Your task to perform on an android device: install app "File Manager" Image 0: 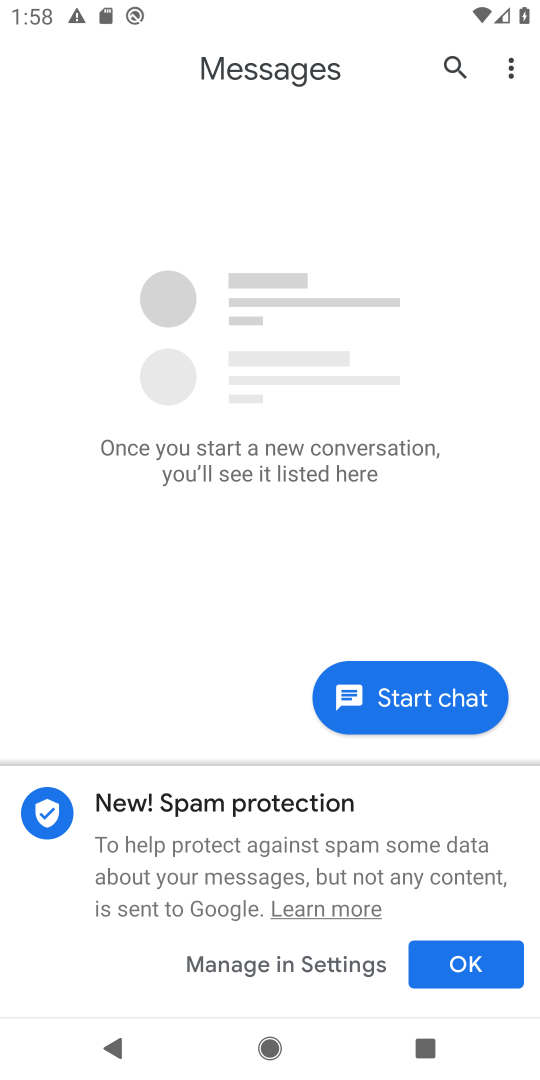
Step 0: press home button
Your task to perform on an android device: install app "File Manager" Image 1: 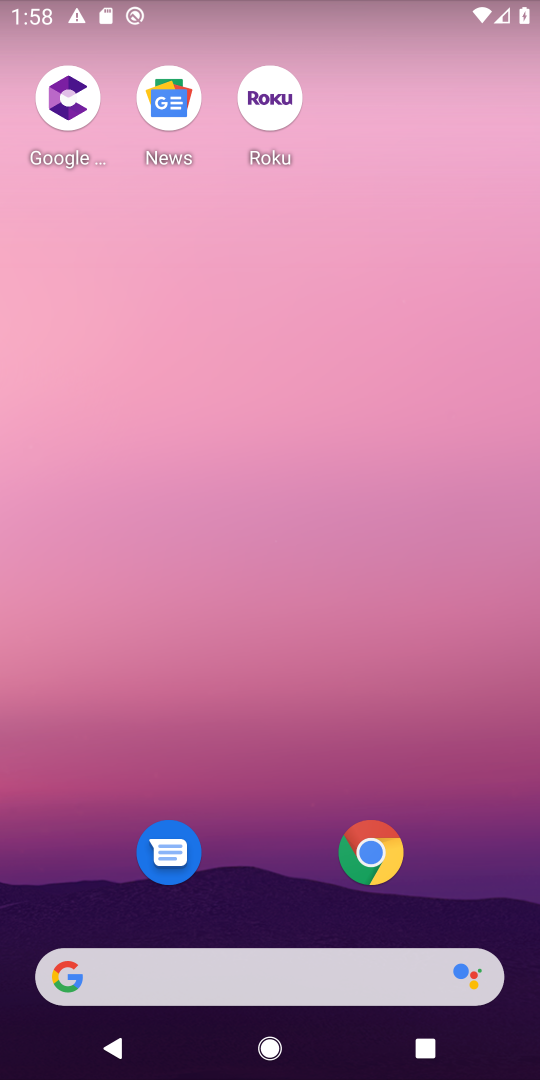
Step 1: drag from (271, 890) to (271, 176)
Your task to perform on an android device: install app "File Manager" Image 2: 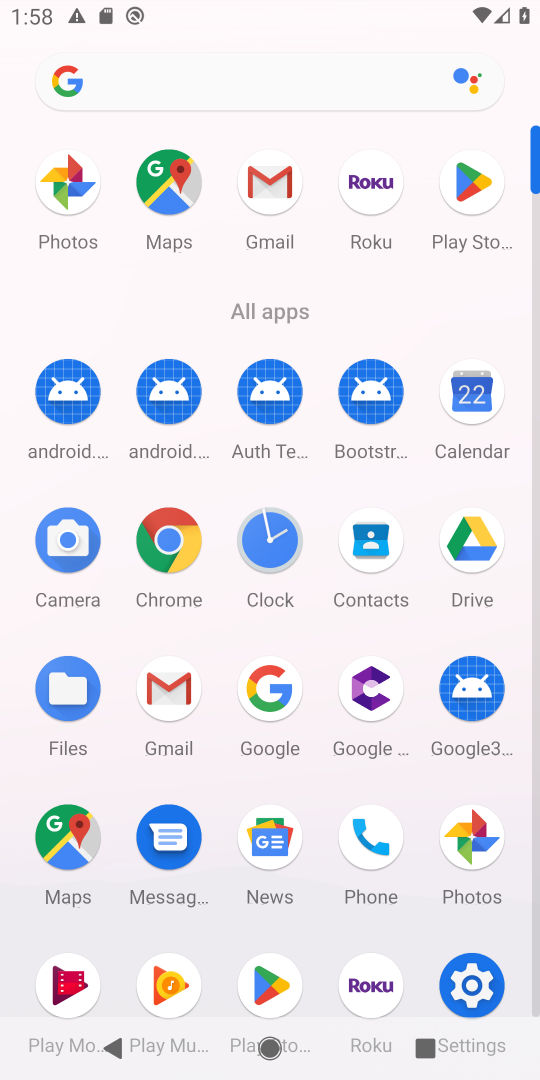
Step 2: click (458, 181)
Your task to perform on an android device: install app "File Manager" Image 3: 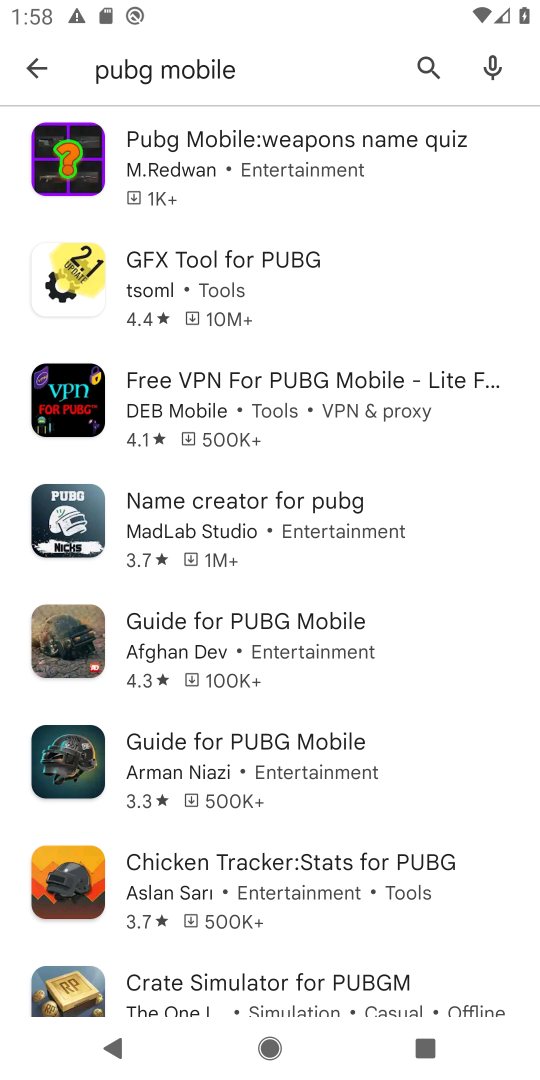
Step 3: click (431, 67)
Your task to perform on an android device: install app "File Manager" Image 4: 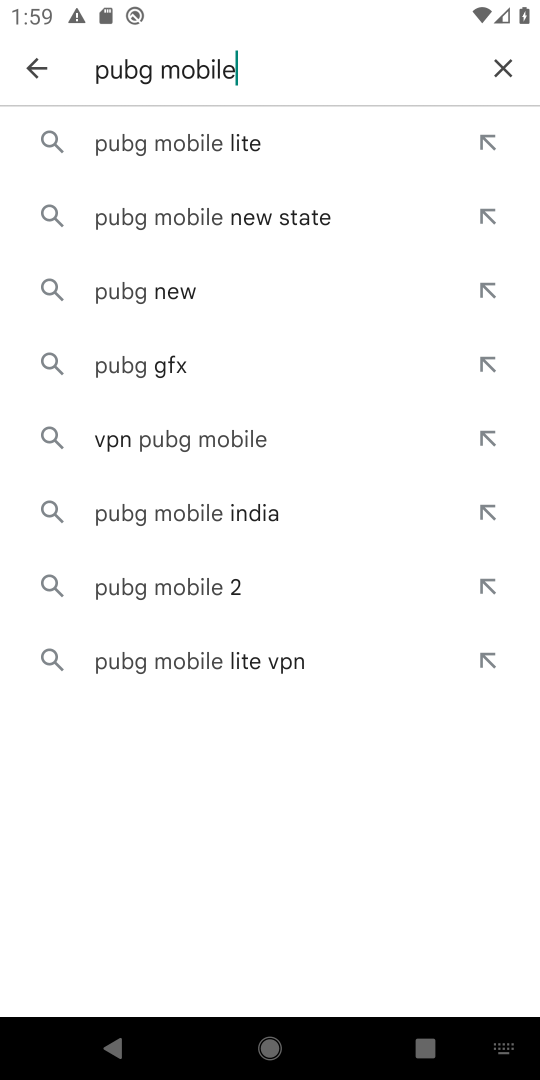
Step 4: click (504, 61)
Your task to perform on an android device: install app "File Manager" Image 5: 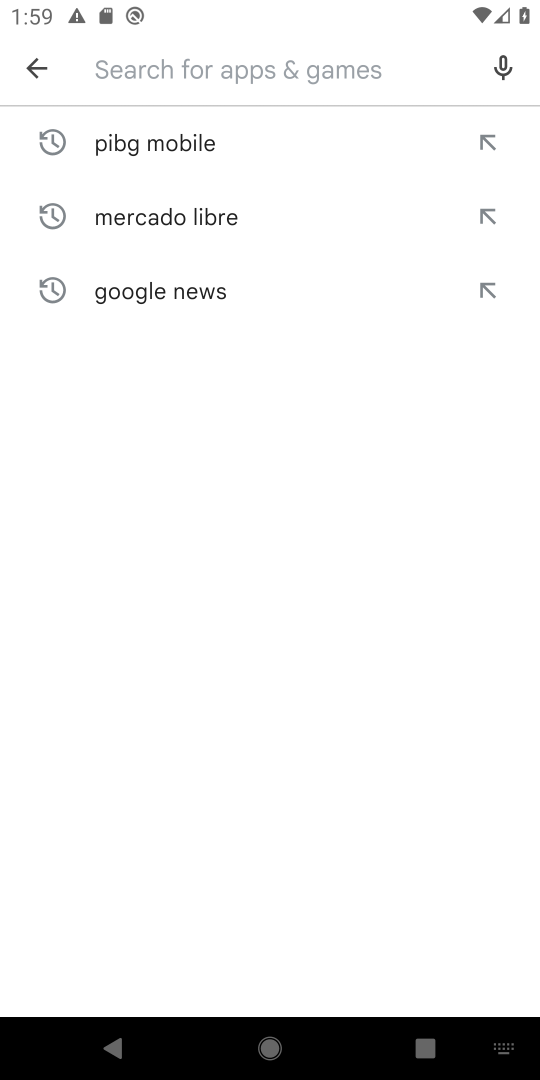
Step 5: type "File Manager"
Your task to perform on an android device: install app "File Manager" Image 6: 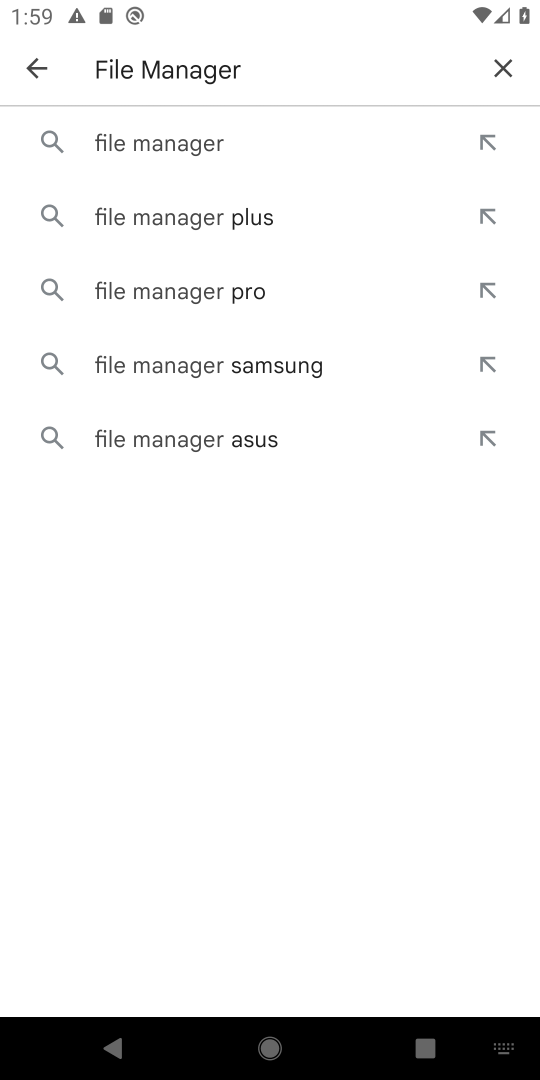
Step 6: click (170, 140)
Your task to perform on an android device: install app "File Manager" Image 7: 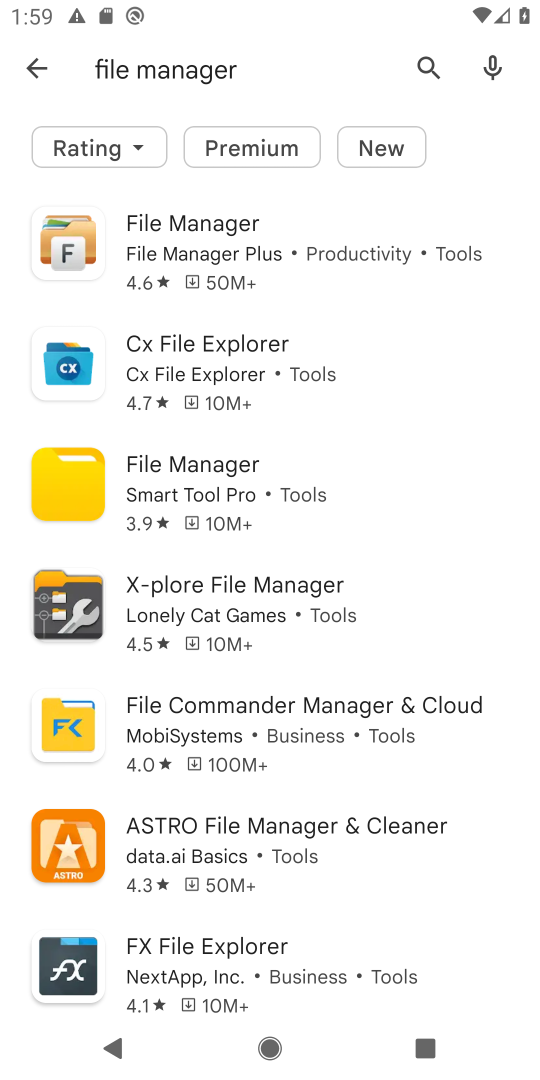
Step 7: click (219, 230)
Your task to perform on an android device: install app "File Manager" Image 8: 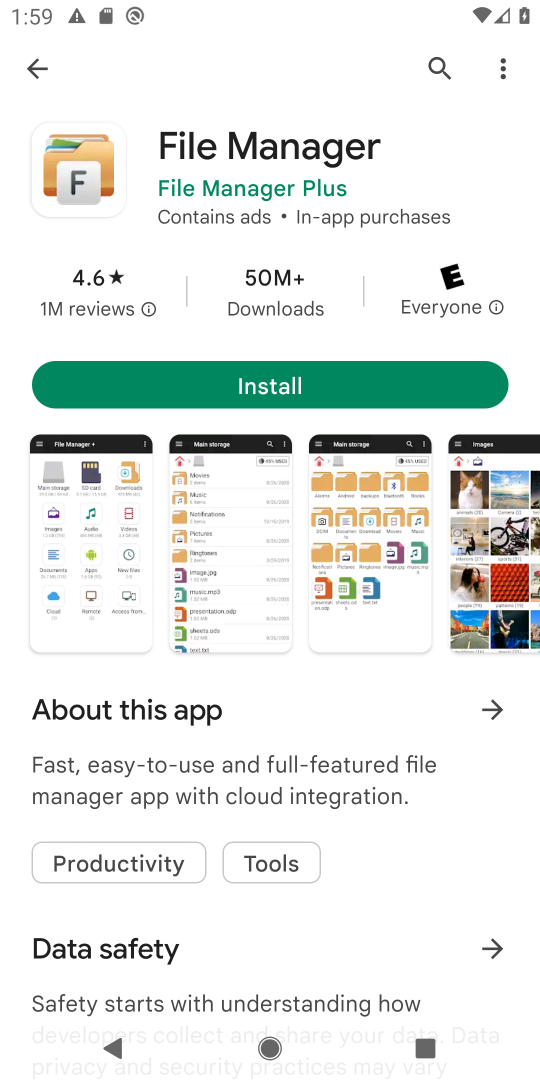
Step 8: click (265, 380)
Your task to perform on an android device: install app "File Manager" Image 9: 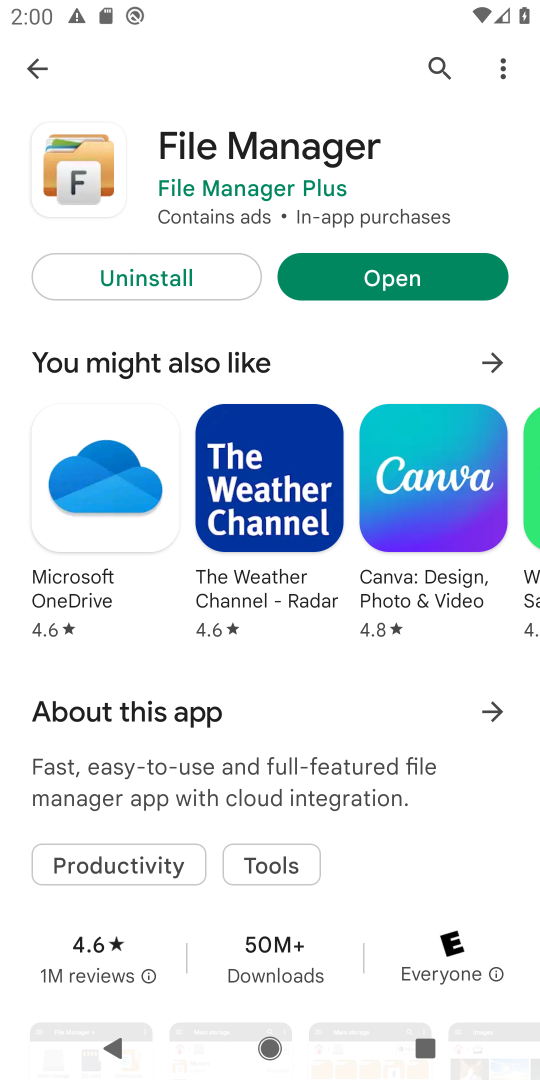
Step 9: task complete